Your task to perform on an android device: Check the news Image 0: 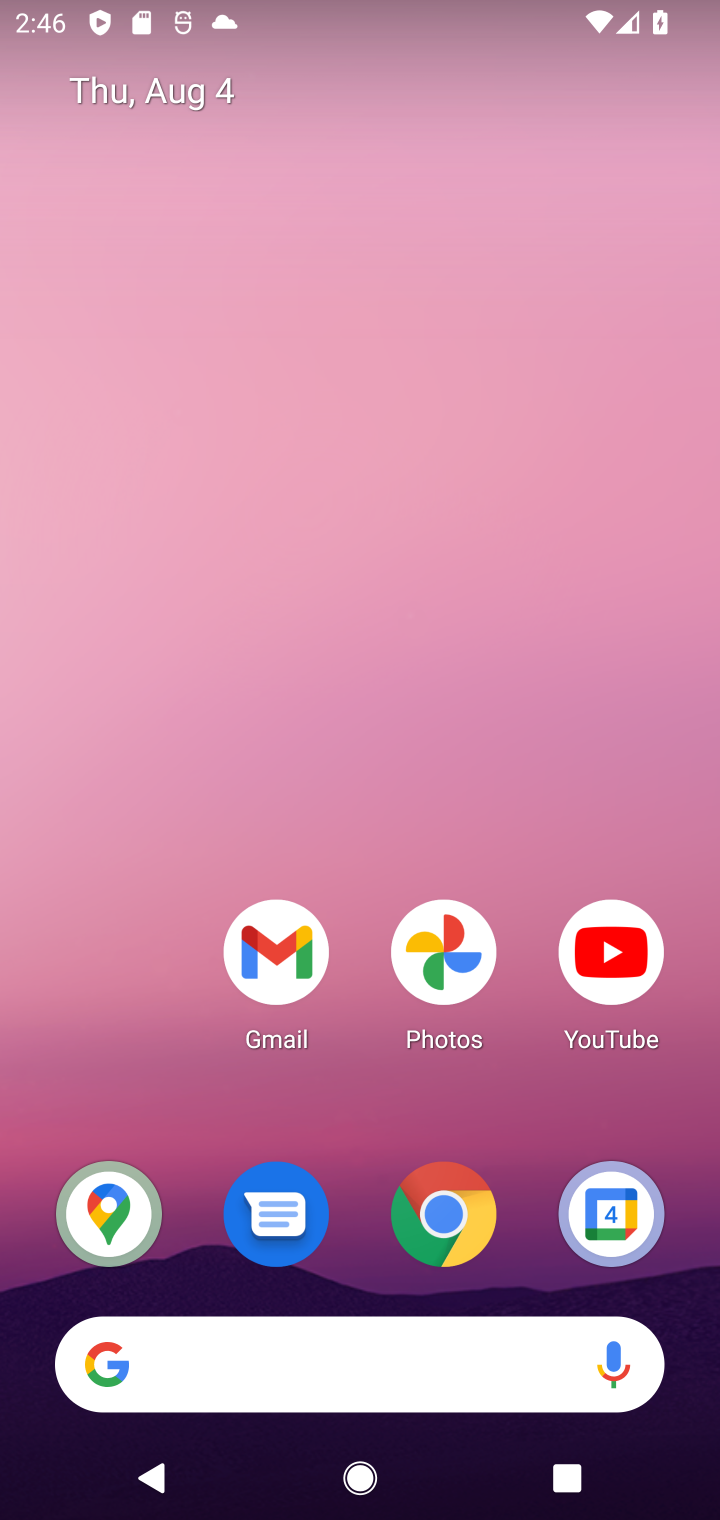
Step 0: drag from (203, 1133) to (57, 6)
Your task to perform on an android device: Check the news Image 1: 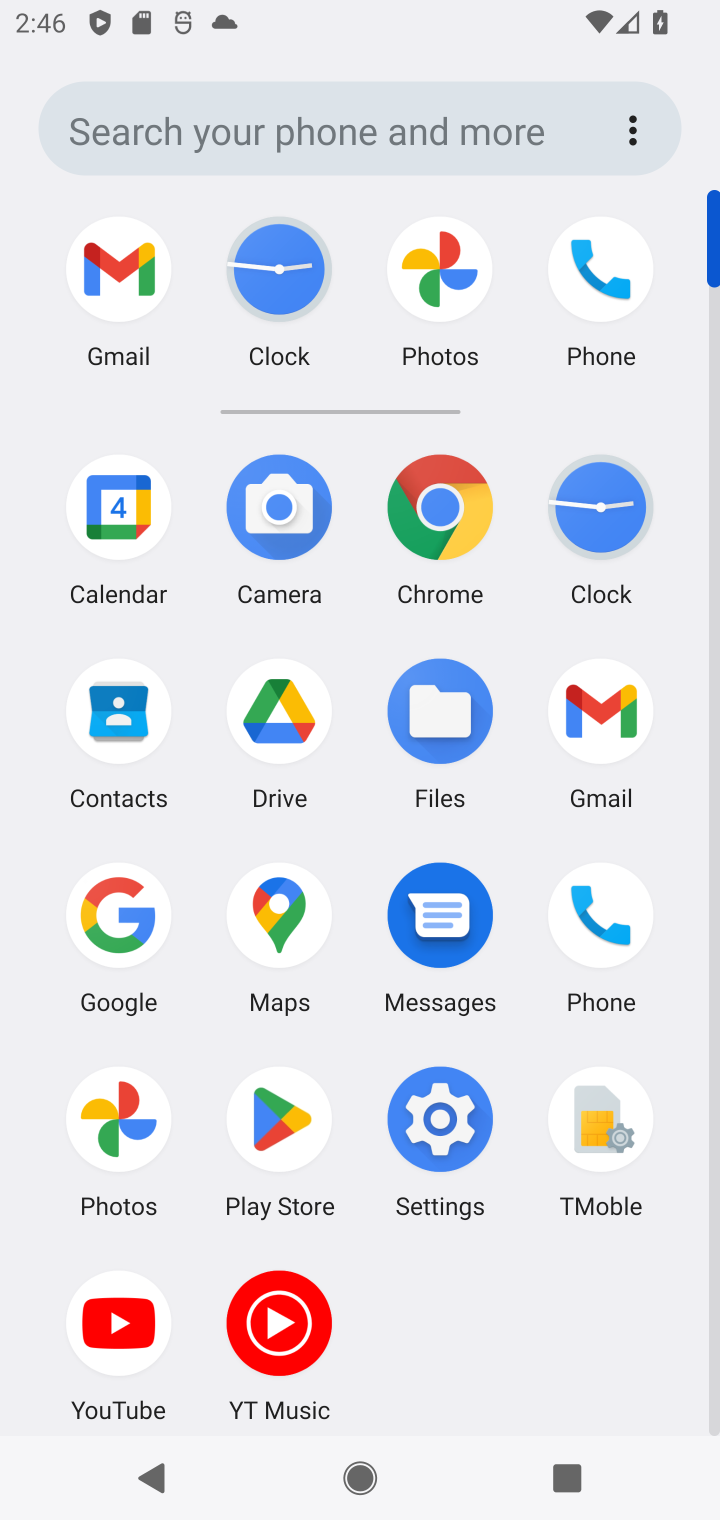
Step 1: click (136, 939)
Your task to perform on an android device: Check the news Image 2: 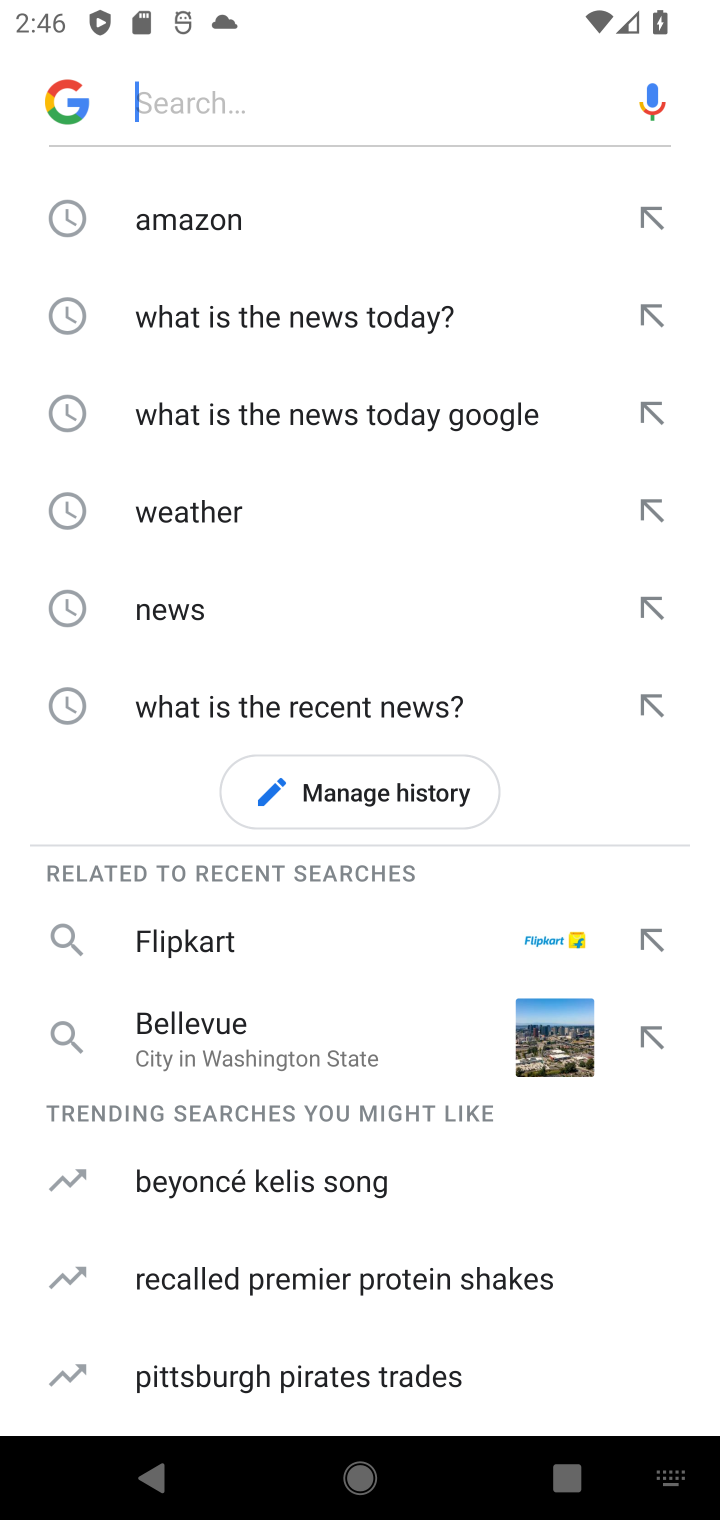
Step 2: click (142, 625)
Your task to perform on an android device: Check the news Image 3: 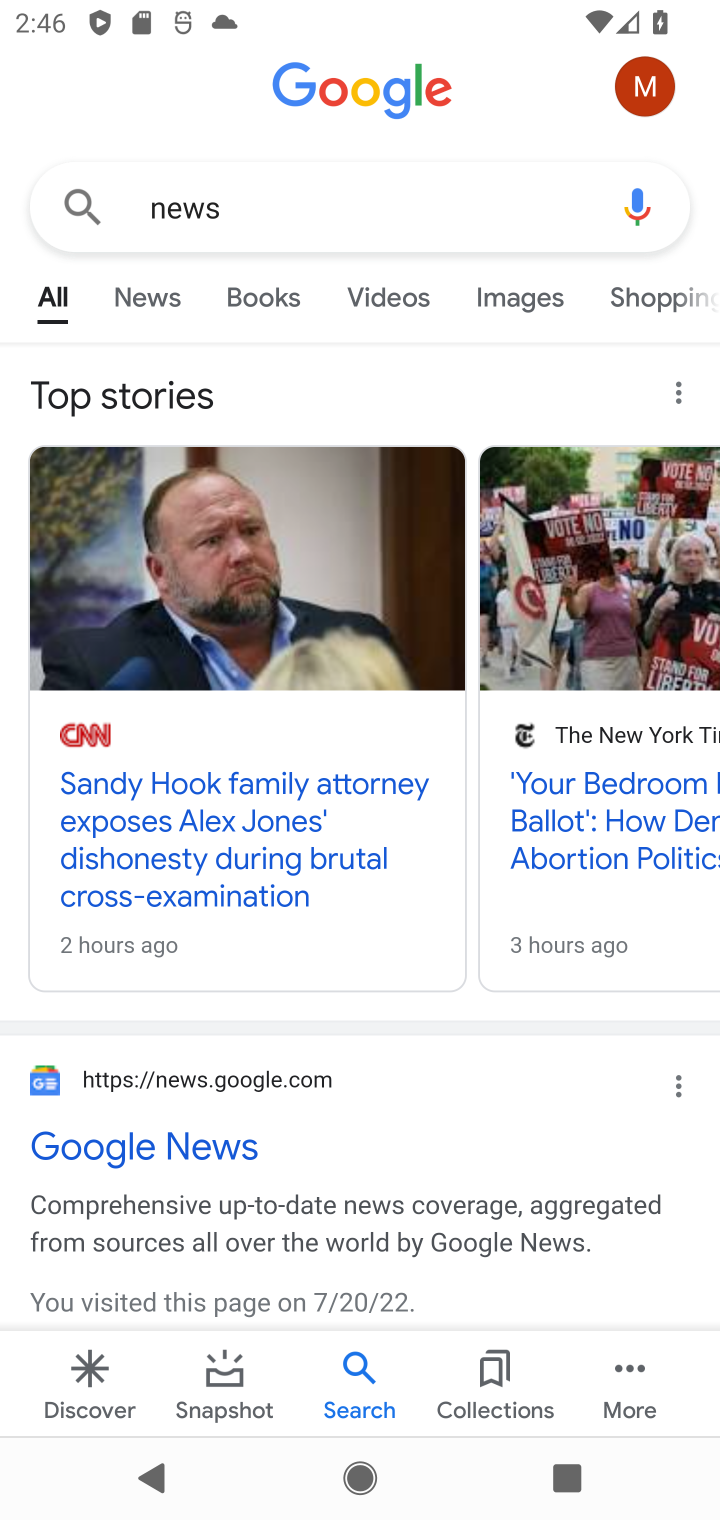
Step 3: task complete